Your task to perform on an android device: clear history in the chrome app Image 0: 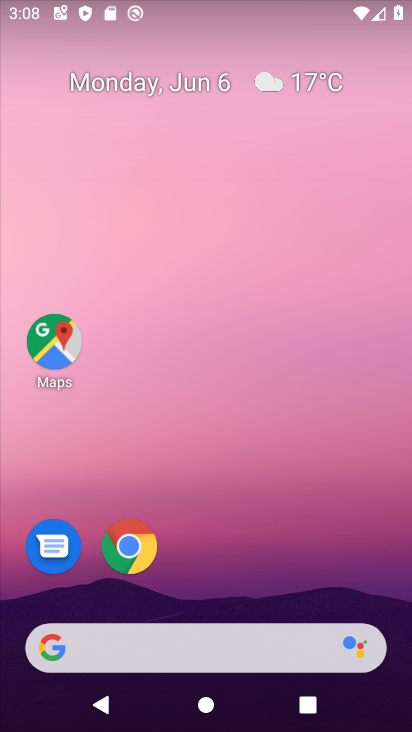
Step 0: drag from (317, 562) to (314, 138)
Your task to perform on an android device: clear history in the chrome app Image 1: 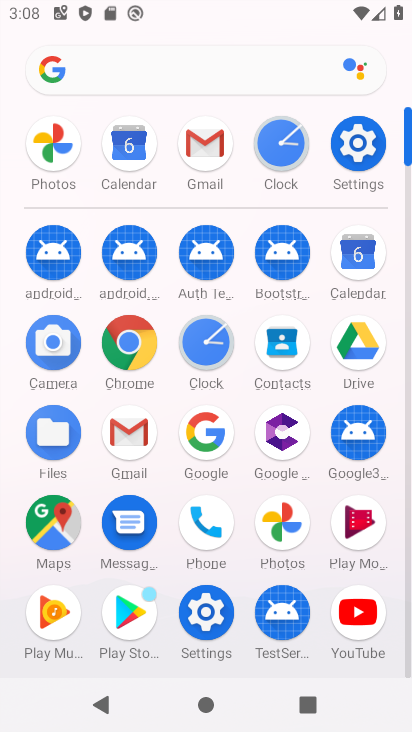
Step 1: click (123, 340)
Your task to perform on an android device: clear history in the chrome app Image 2: 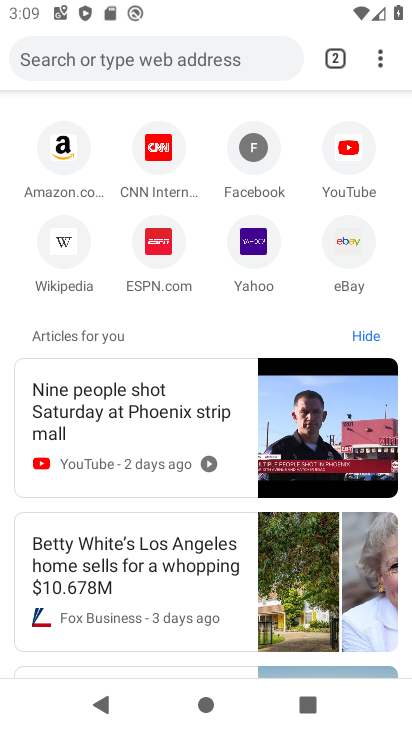
Step 2: click (379, 54)
Your task to perform on an android device: clear history in the chrome app Image 3: 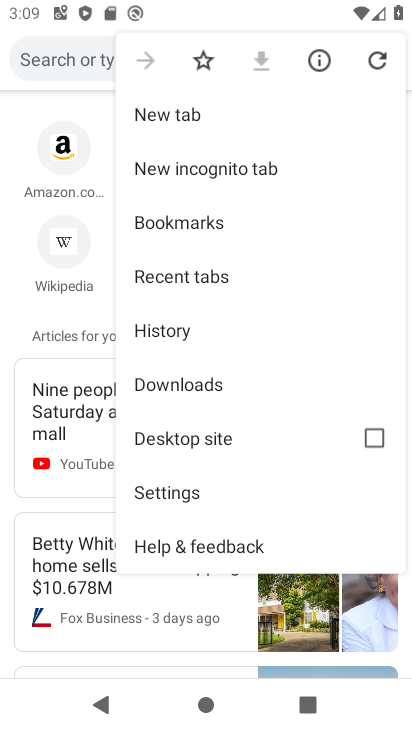
Step 3: click (237, 324)
Your task to perform on an android device: clear history in the chrome app Image 4: 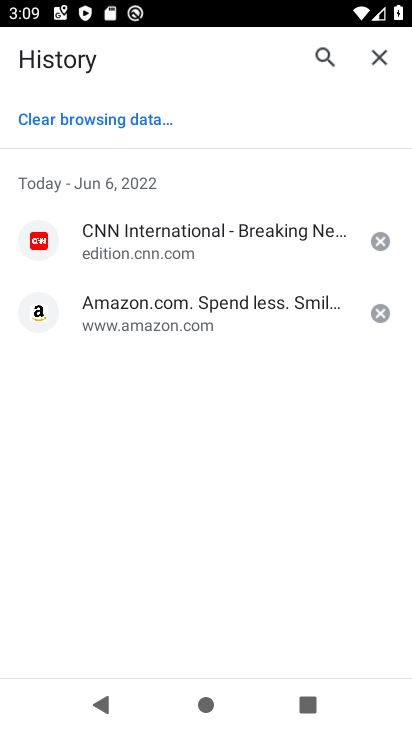
Step 4: click (139, 143)
Your task to perform on an android device: clear history in the chrome app Image 5: 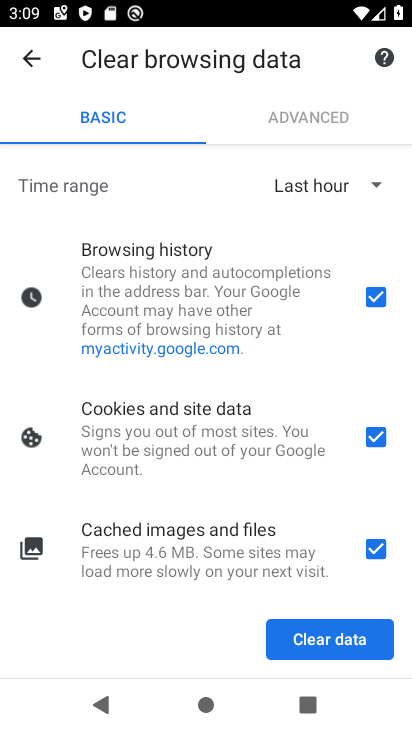
Step 5: click (354, 635)
Your task to perform on an android device: clear history in the chrome app Image 6: 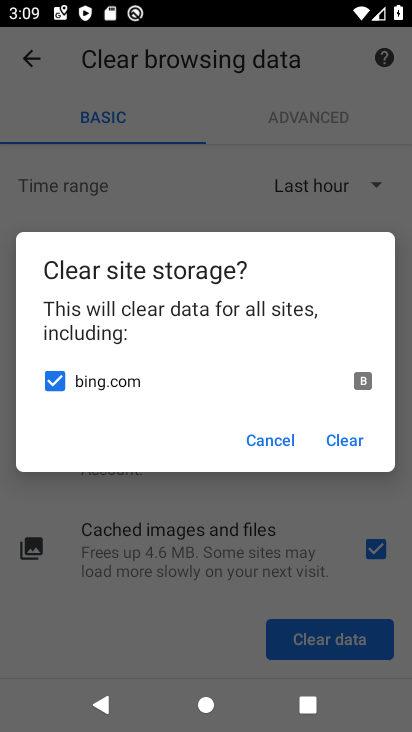
Step 6: click (346, 439)
Your task to perform on an android device: clear history in the chrome app Image 7: 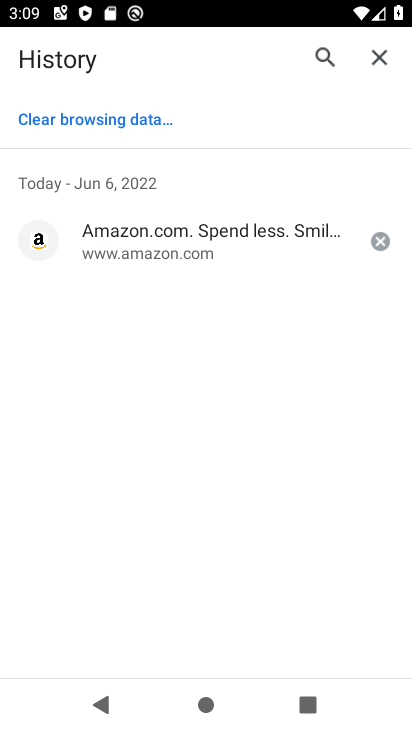
Step 7: task complete